Your task to perform on an android device: delete a single message in the gmail app Image 0: 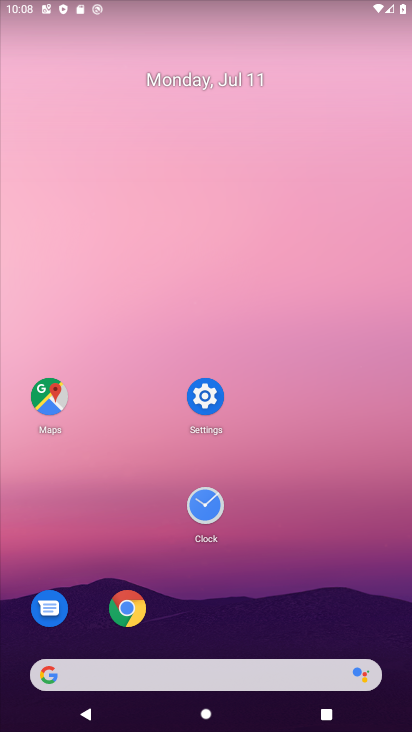
Step 0: drag from (394, 686) to (393, 100)
Your task to perform on an android device: delete a single message in the gmail app Image 1: 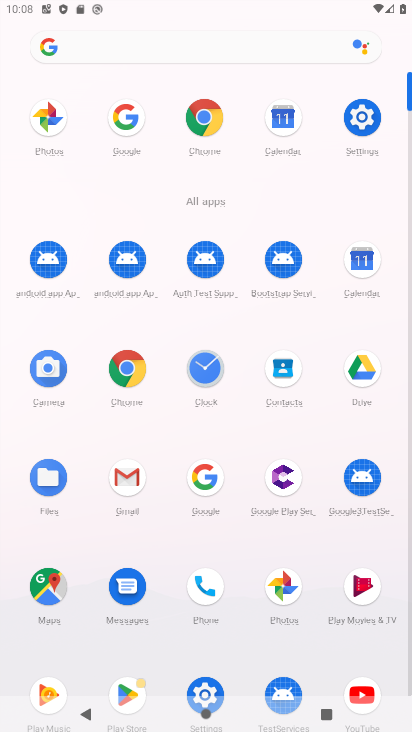
Step 1: click (132, 483)
Your task to perform on an android device: delete a single message in the gmail app Image 2: 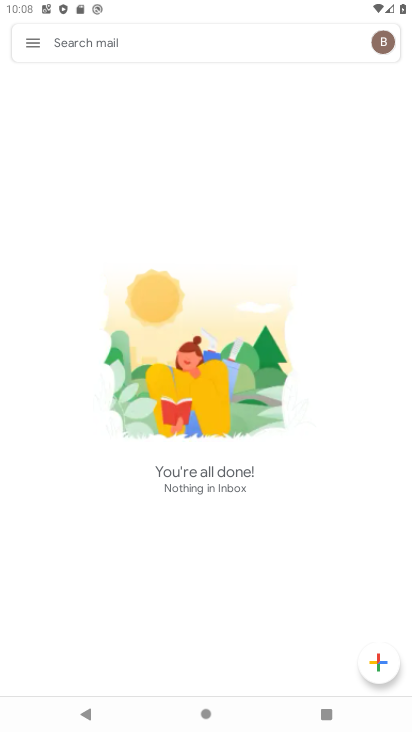
Step 2: task complete